Your task to perform on an android device: Check the weather Image 0: 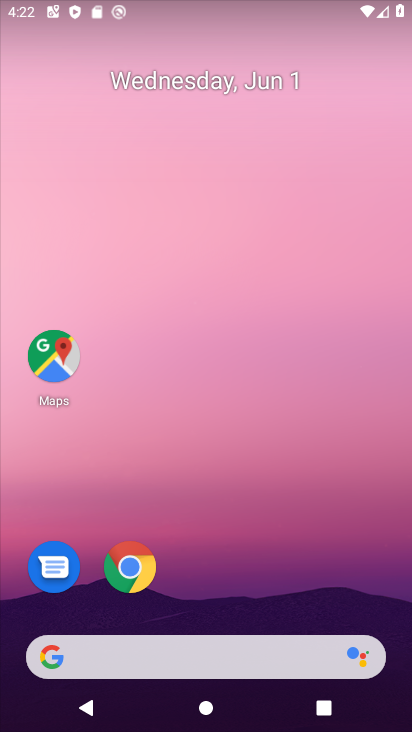
Step 0: click (160, 669)
Your task to perform on an android device: Check the weather Image 1: 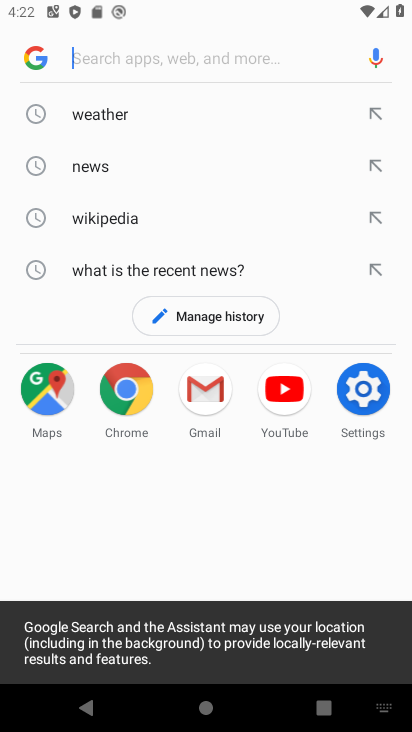
Step 1: click (91, 113)
Your task to perform on an android device: Check the weather Image 2: 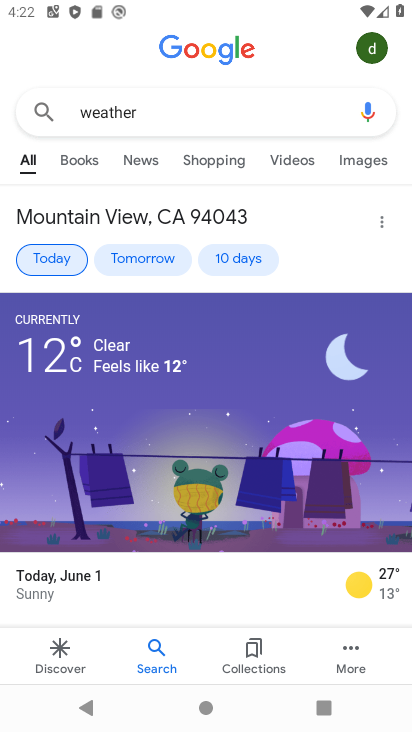
Step 2: task complete